Your task to perform on an android device: Go to Maps Image 0: 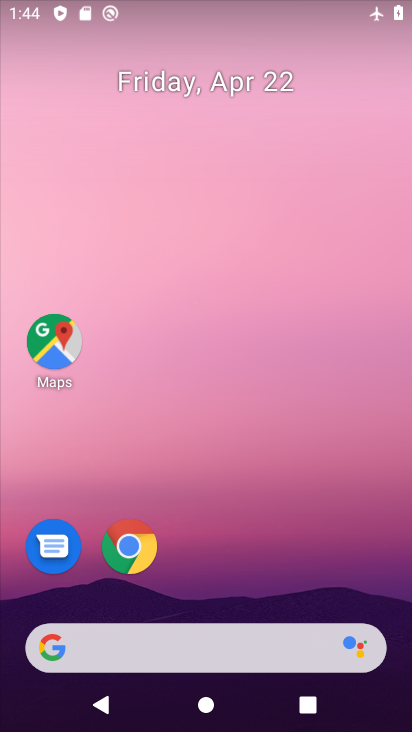
Step 0: click (58, 345)
Your task to perform on an android device: Go to Maps Image 1: 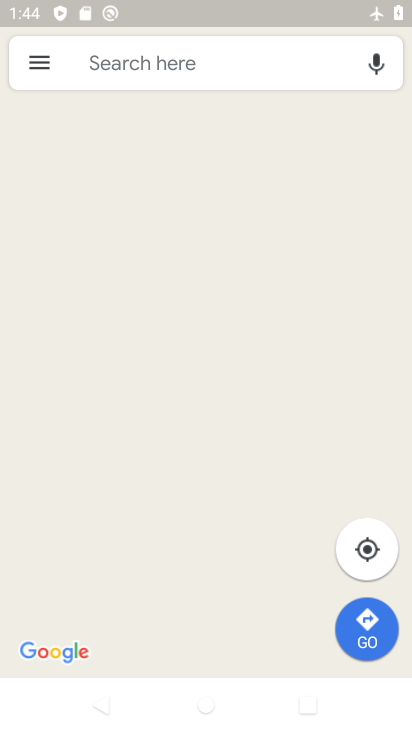
Step 1: task complete